Your task to perform on an android device: Go to Google maps Image 0: 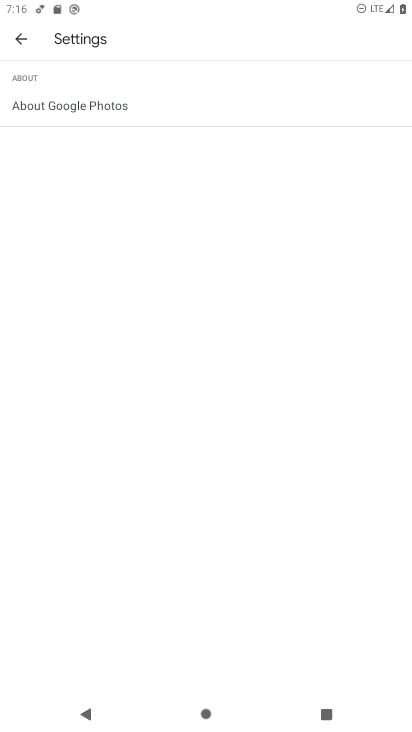
Step 0: press home button
Your task to perform on an android device: Go to Google maps Image 1: 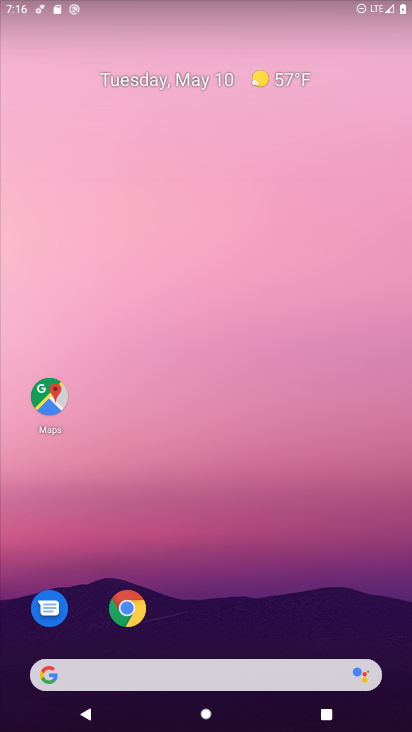
Step 1: drag from (337, 611) to (304, 56)
Your task to perform on an android device: Go to Google maps Image 2: 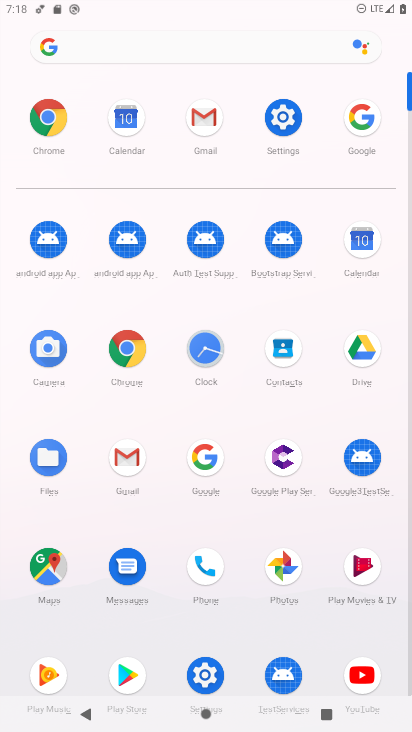
Step 2: click (57, 557)
Your task to perform on an android device: Go to Google maps Image 3: 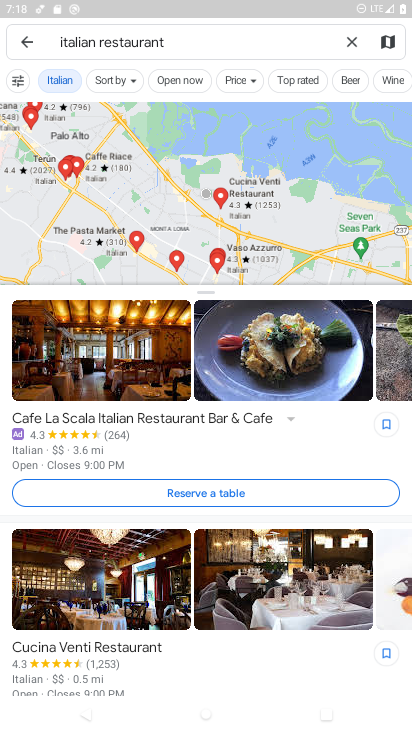
Step 3: click (346, 41)
Your task to perform on an android device: Go to Google maps Image 4: 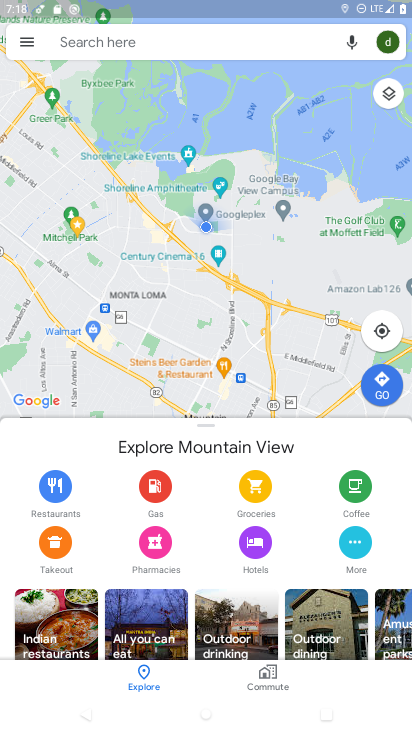
Step 4: task complete